Your task to perform on an android device: toggle sleep mode Image 0: 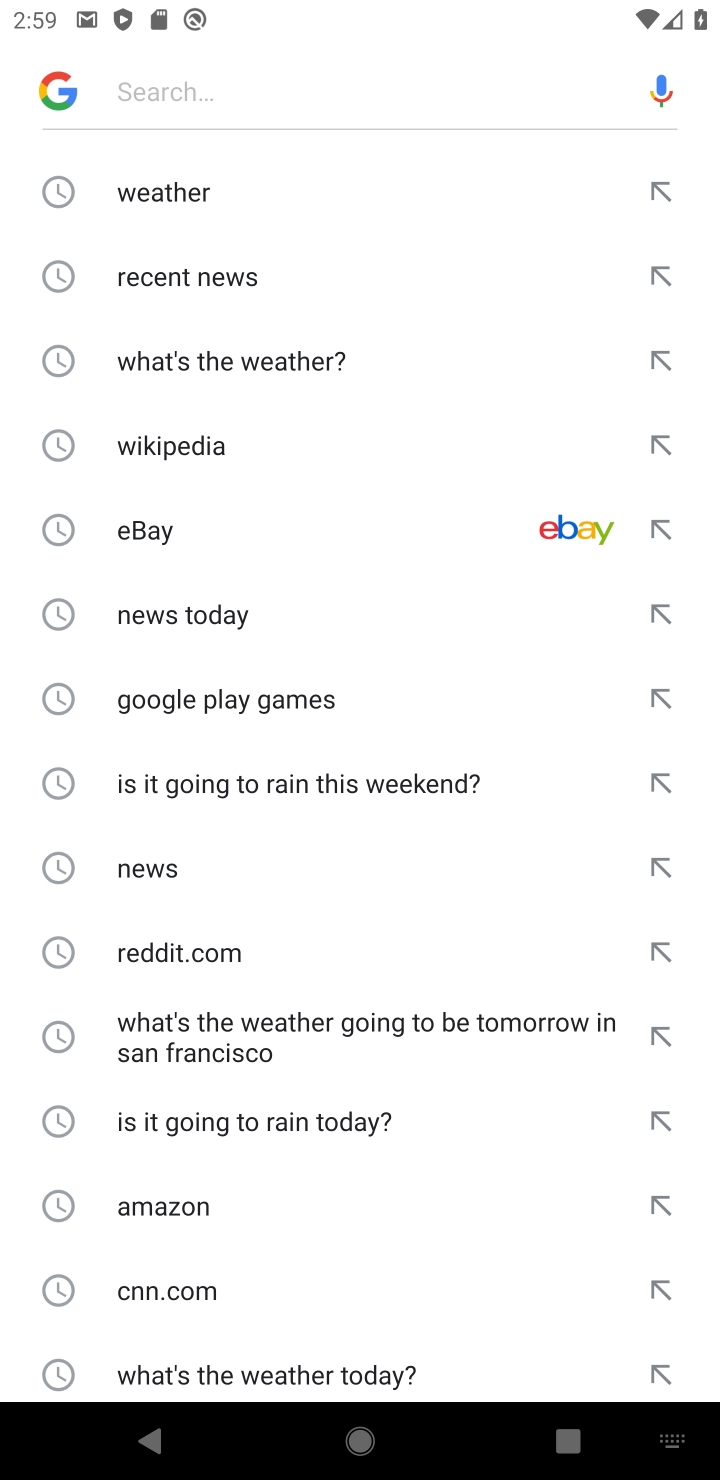
Step 0: press back button
Your task to perform on an android device: toggle sleep mode Image 1: 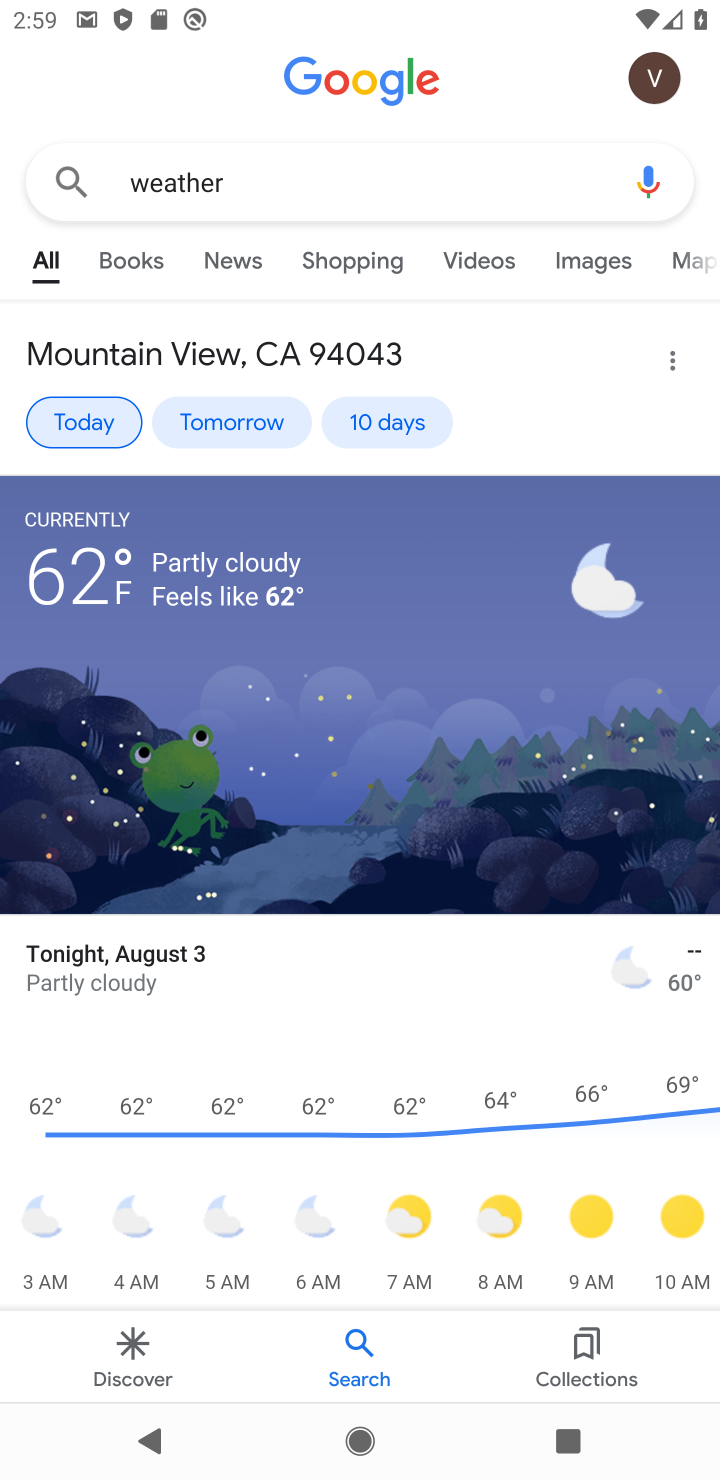
Step 1: press home button
Your task to perform on an android device: toggle sleep mode Image 2: 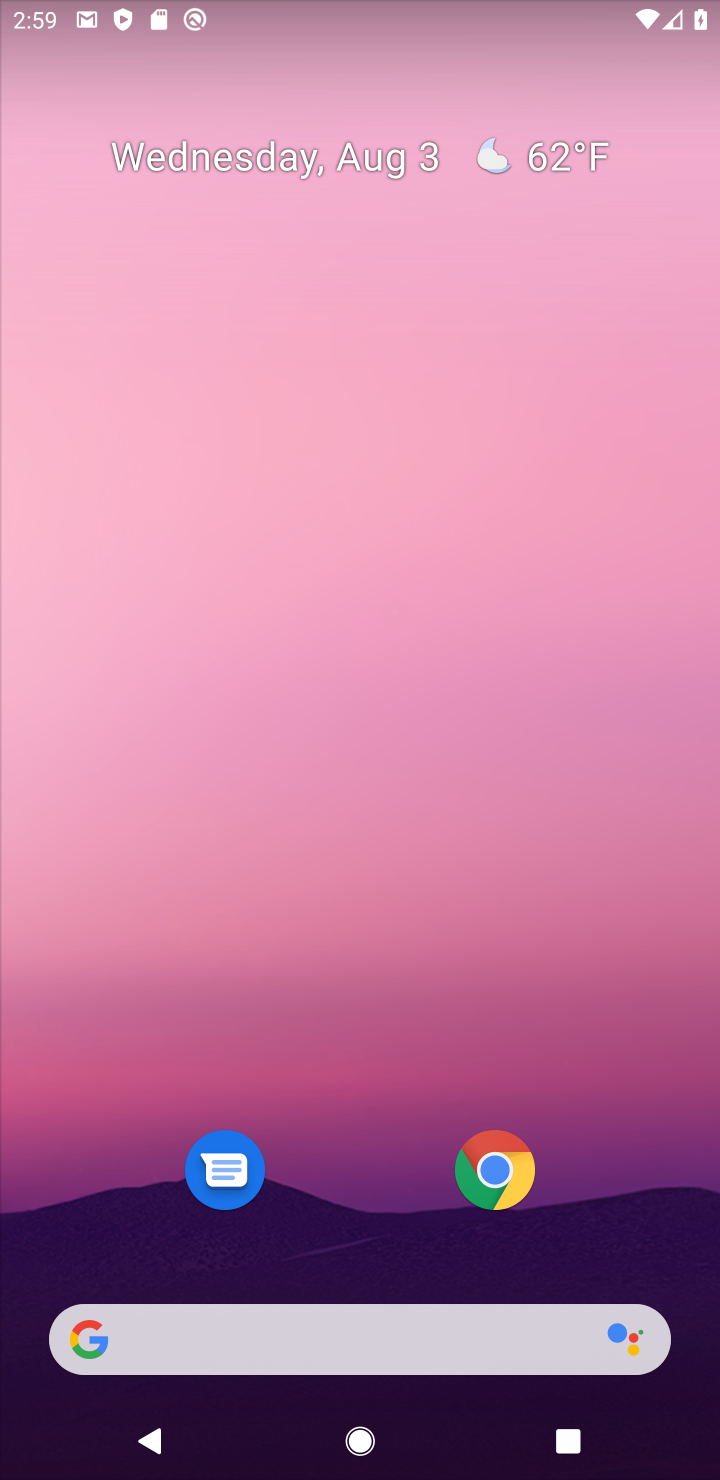
Step 2: drag from (388, 1067) to (387, 219)
Your task to perform on an android device: toggle sleep mode Image 3: 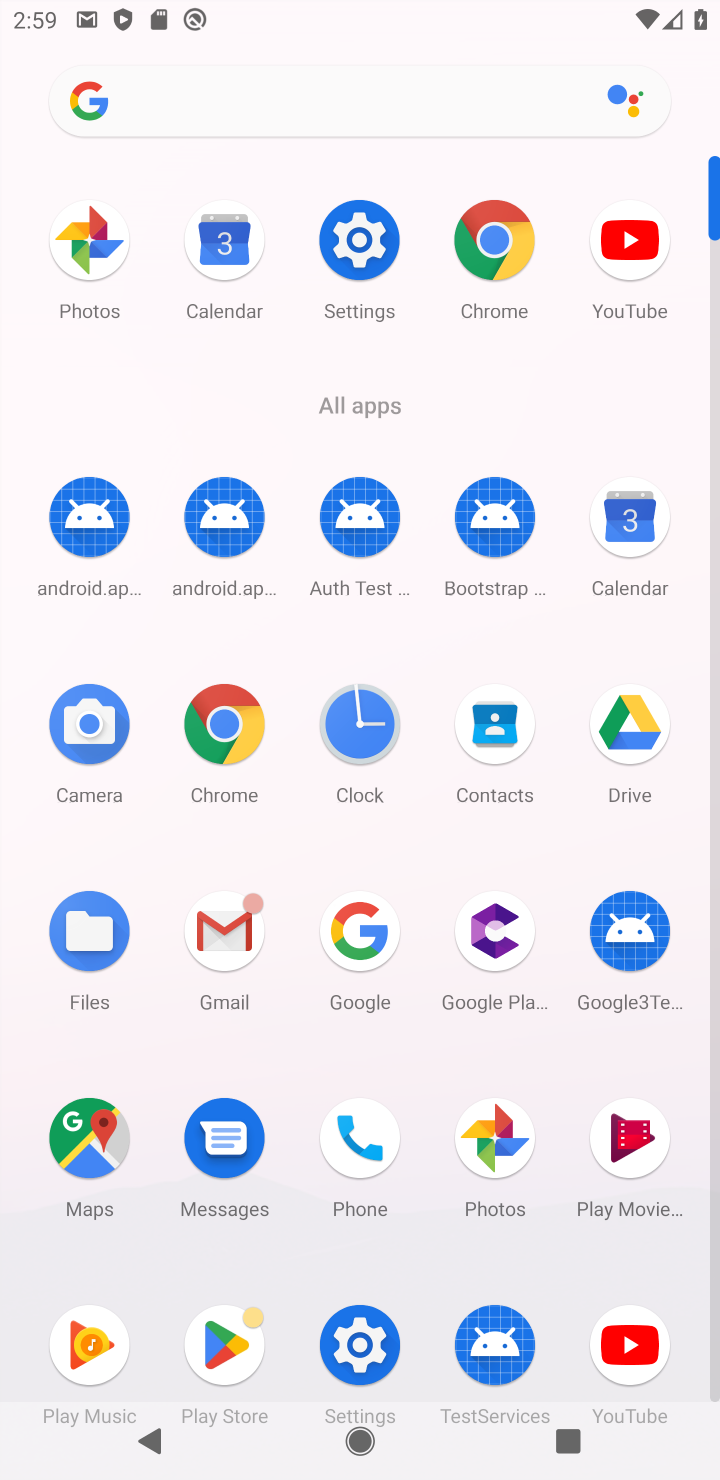
Step 3: click (363, 240)
Your task to perform on an android device: toggle sleep mode Image 4: 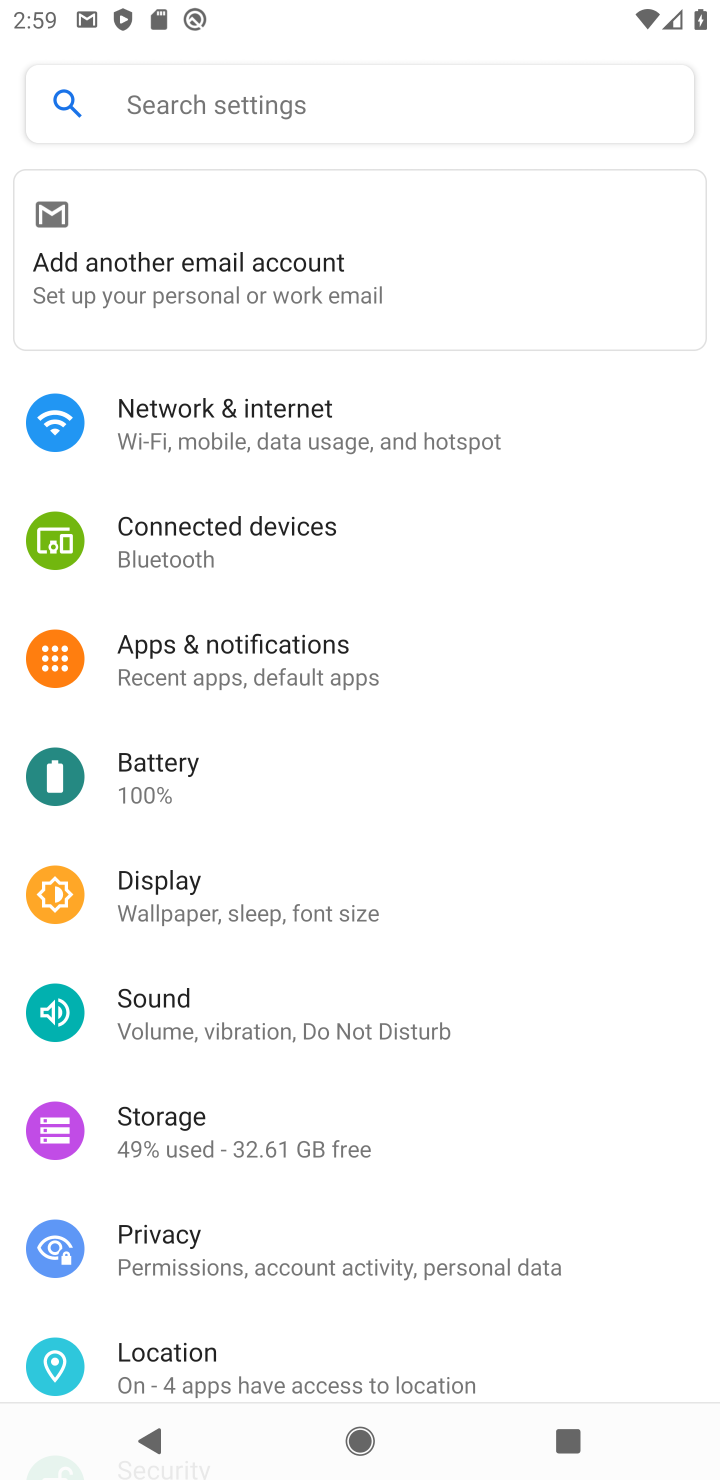
Step 4: task complete